Your task to perform on an android device: open app "Messenger Lite" (install if not already installed) Image 0: 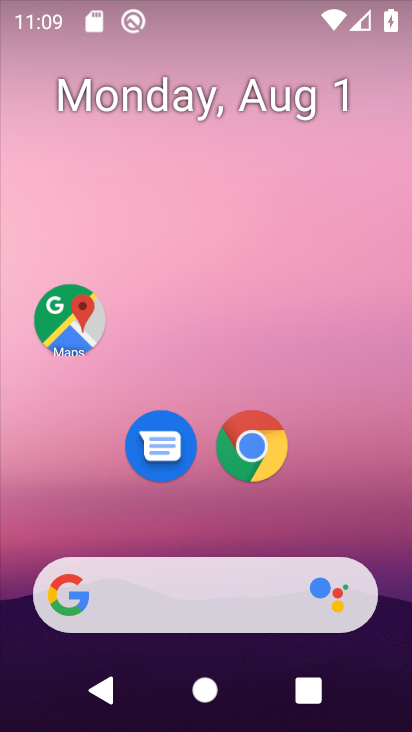
Step 0: drag from (203, 534) to (187, 108)
Your task to perform on an android device: open app "Messenger Lite" (install if not already installed) Image 1: 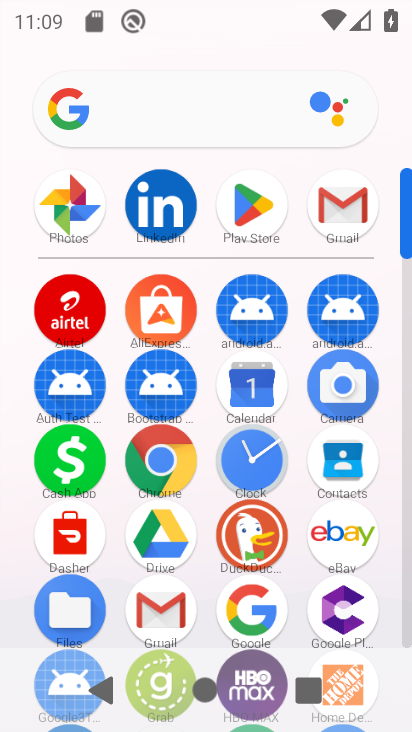
Step 1: click (250, 214)
Your task to perform on an android device: open app "Messenger Lite" (install if not already installed) Image 2: 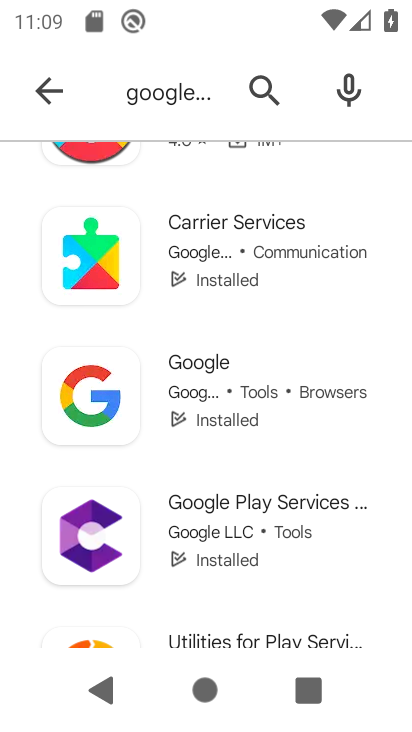
Step 2: click (278, 96)
Your task to perform on an android device: open app "Messenger Lite" (install if not already installed) Image 3: 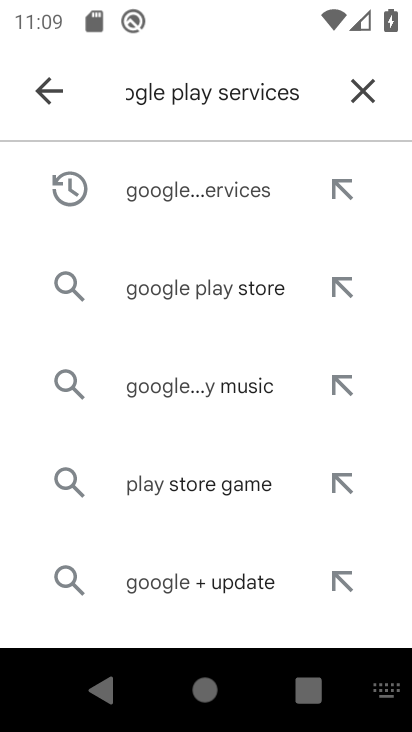
Step 3: click (410, 91)
Your task to perform on an android device: open app "Messenger Lite" (install if not already installed) Image 4: 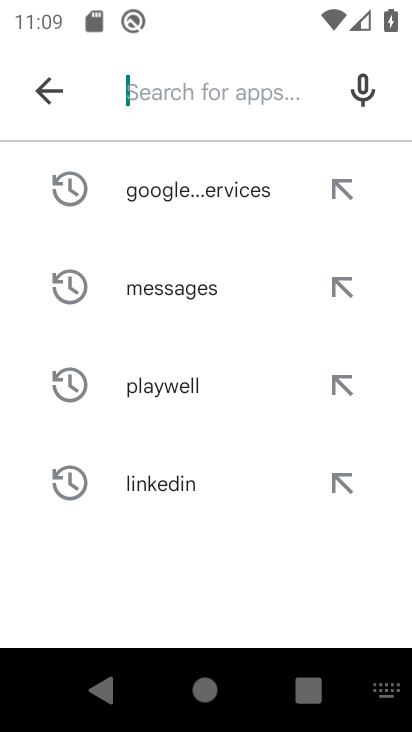
Step 4: click (377, 87)
Your task to perform on an android device: open app "Messenger Lite" (install if not already installed) Image 5: 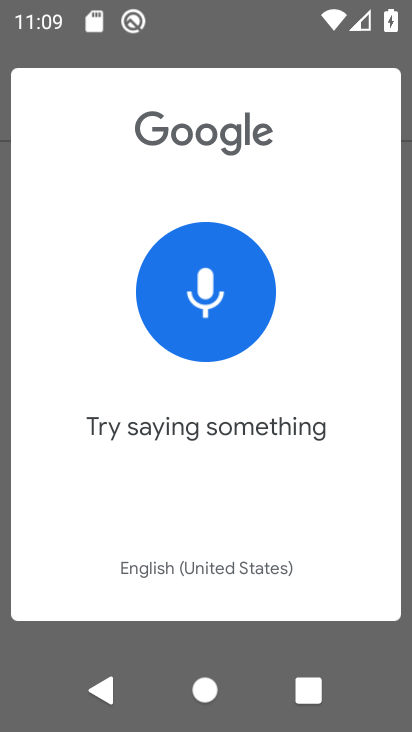
Step 5: click (181, 636)
Your task to perform on an android device: open app "Messenger Lite" (install if not already installed) Image 6: 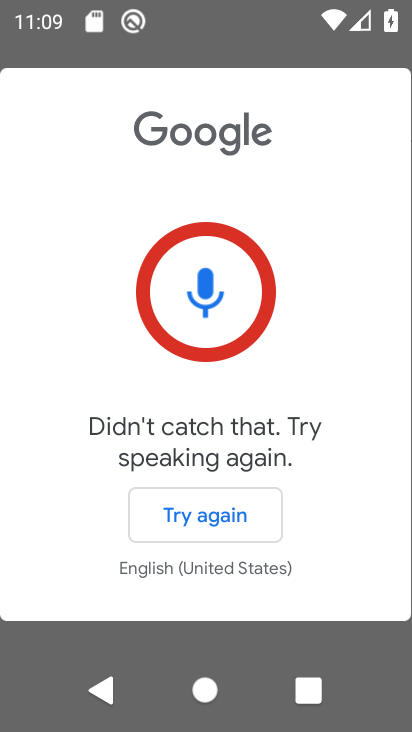
Step 6: press back button
Your task to perform on an android device: open app "Messenger Lite" (install if not already installed) Image 7: 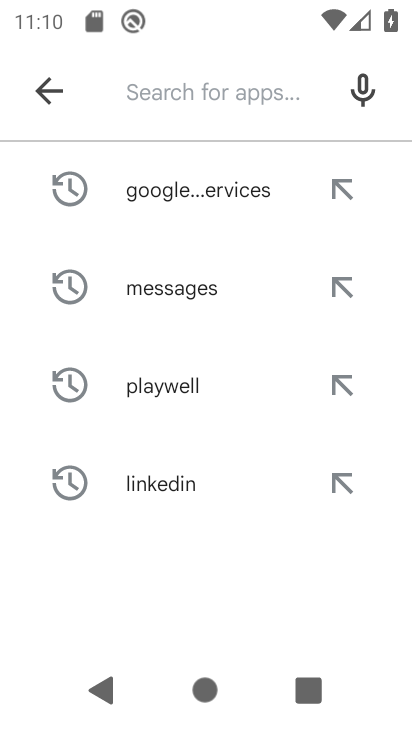
Step 7: click (235, 92)
Your task to perform on an android device: open app "Messenger Lite" (install if not already installed) Image 8: 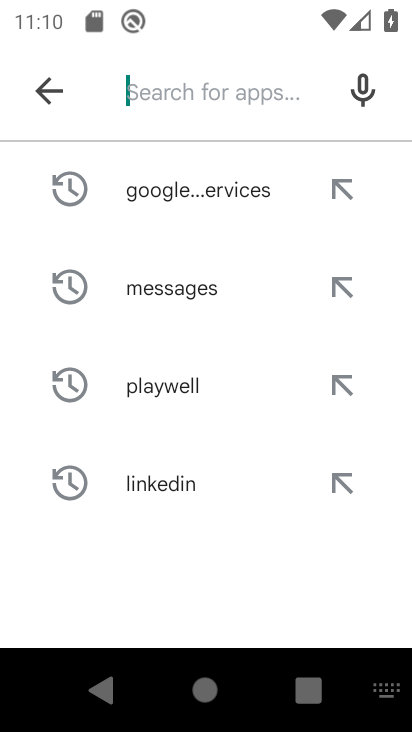
Step 8: type "Messenger Lite"
Your task to perform on an android device: open app "Messenger Lite" (install if not already installed) Image 9: 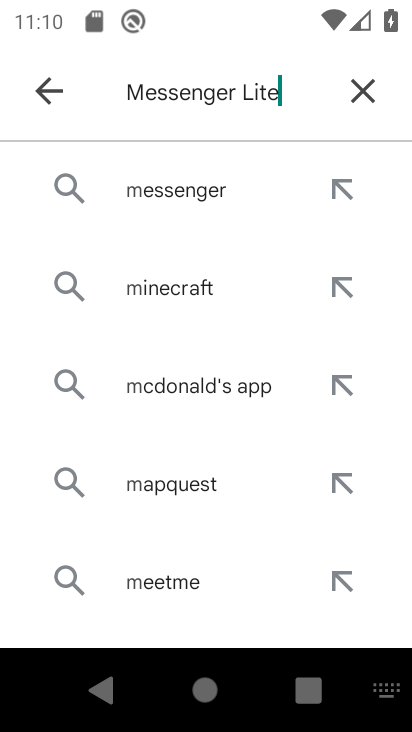
Step 9: type ""
Your task to perform on an android device: open app "Messenger Lite" (install if not already installed) Image 10: 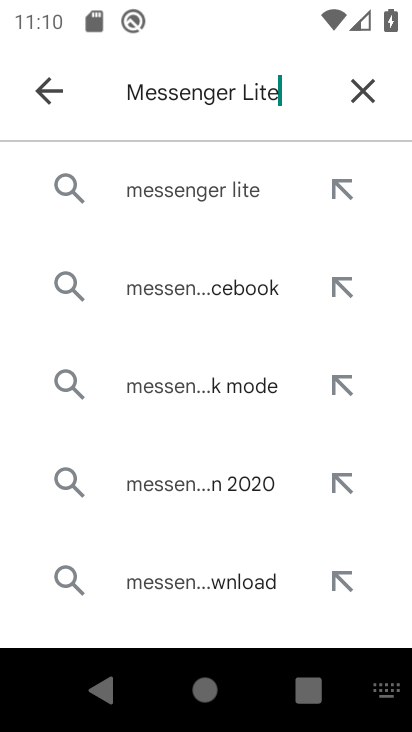
Step 10: click (188, 192)
Your task to perform on an android device: open app "Messenger Lite" (install if not already installed) Image 11: 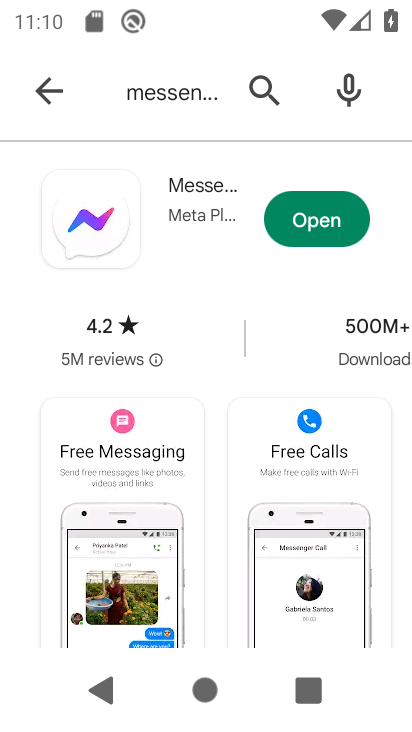
Step 11: click (301, 222)
Your task to perform on an android device: open app "Messenger Lite" (install if not already installed) Image 12: 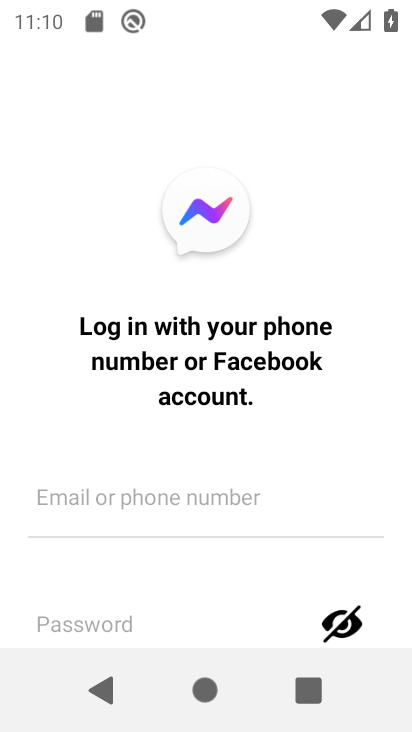
Step 12: task complete